Your task to perform on an android device: Do I have any events today? Image 0: 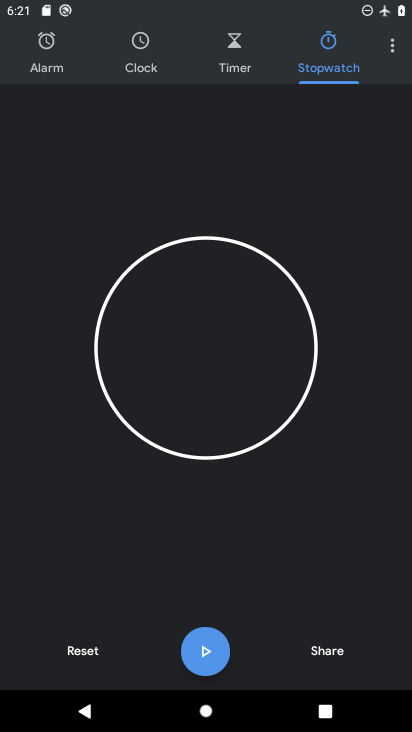
Step 0: press home button
Your task to perform on an android device: Do I have any events today? Image 1: 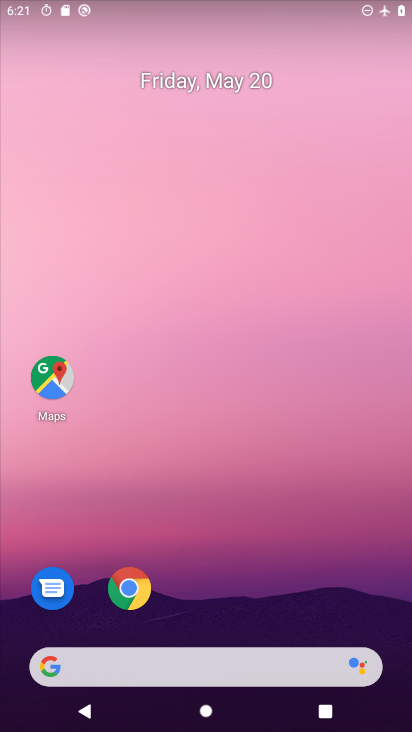
Step 1: drag from (220, 597) to (177, 84)
Your task to perform on an android device: Do I have any events today? Image 2: 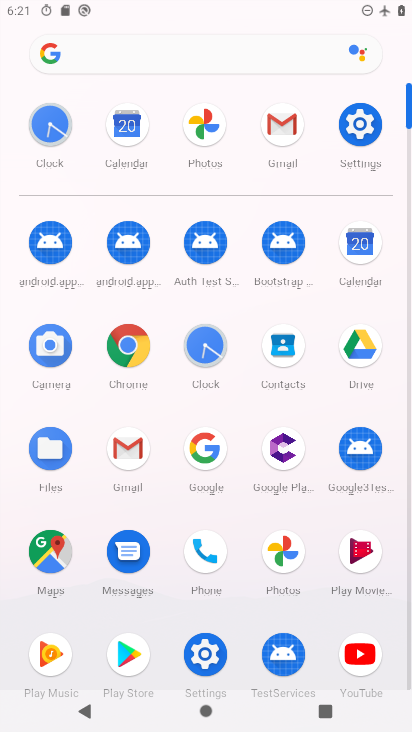
Step 2: click (366, 274)
Your task to perform on an android device: Do I have any events today? Image 3: 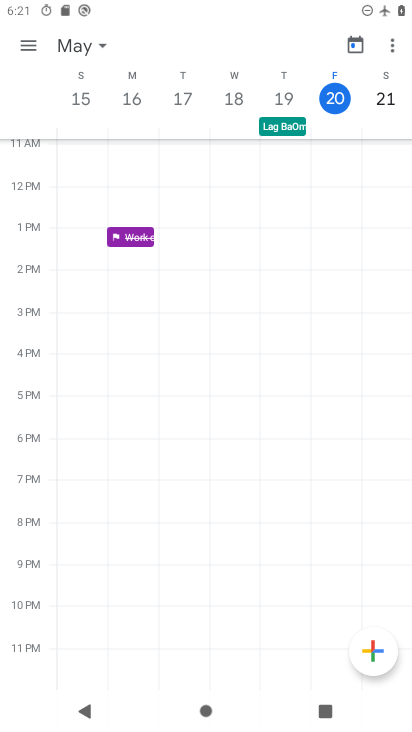
Step 3: click (41, 52)
Your task to perform on an android device: Do I have any events today? Image 4: 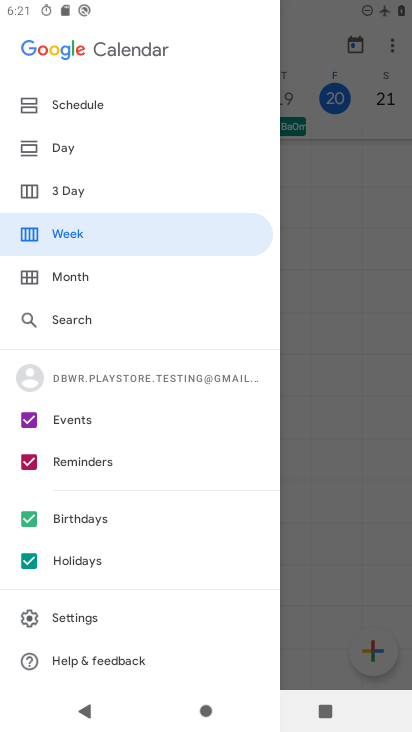
Step 4: click (87, 108)
Your task to perform on an android device: Do I have any events today? Image 5: 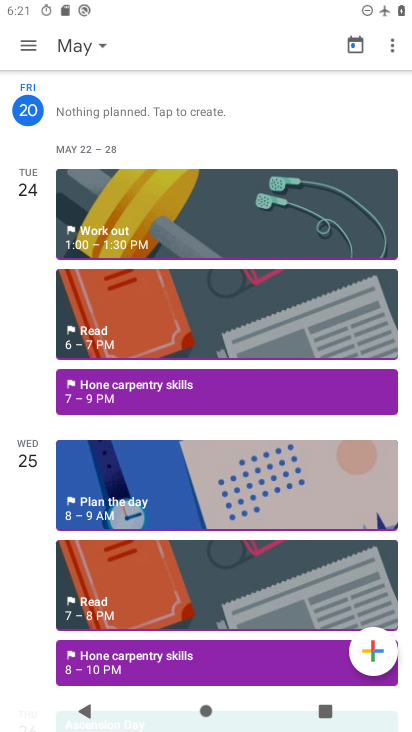
Step 5: task complete